Your task to perform on an android device: move a message to another label in the gmail app Image 0: 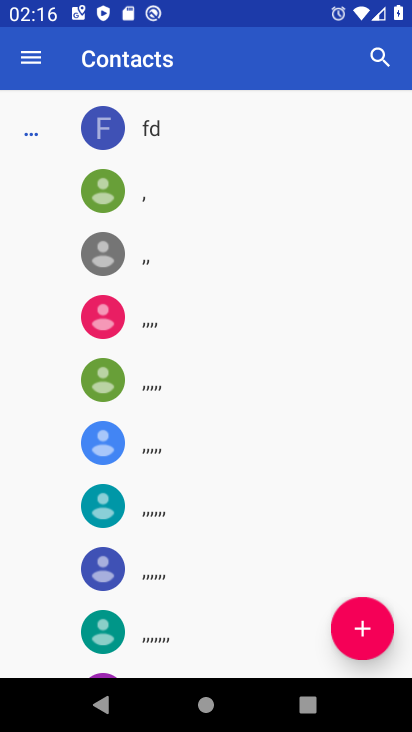
Step 0: press home button
Your task to perform on an android device: move a message to another label in the gmail app Image 1: 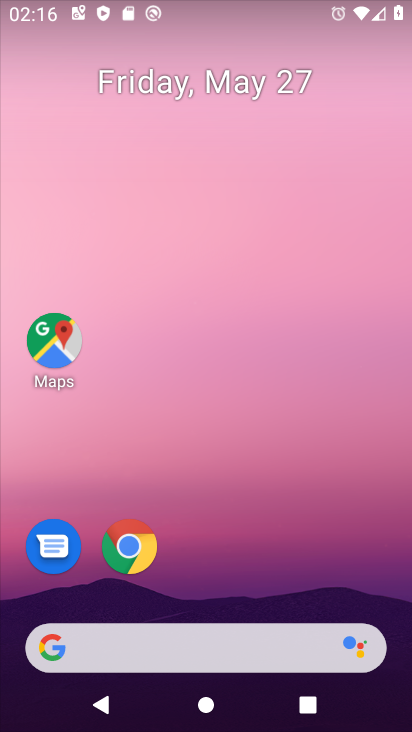
Step 1: drag from (239, 625) to (186, 49)
Your task to perform on an android device: move a message to another label in the gmail app Image 2: 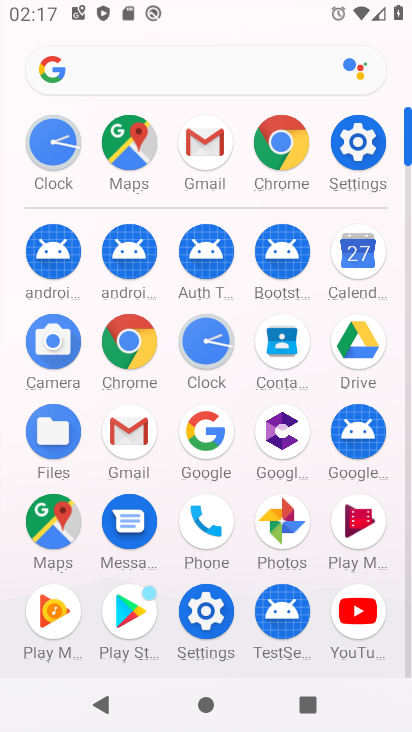
Step 2: click (208, 142)
Your task to perform on an android device: move a message to another label in the gmail app Image 3: 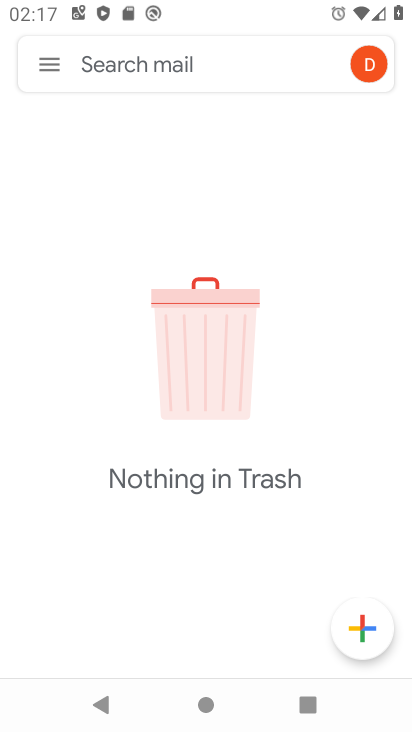
Step 3: click (43, 74)
Your task to perform on an android device: move a message to another label in the gmail app Image 4: 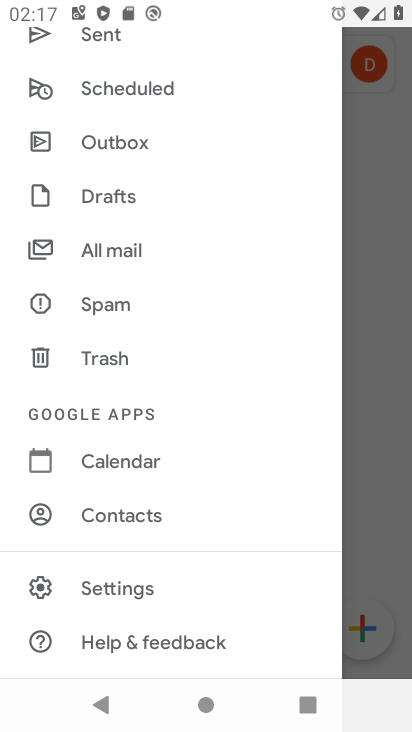
Step 4: click (118, 588)
Your task to perform on an android device: move a message to another label in the gmail app Image 5: 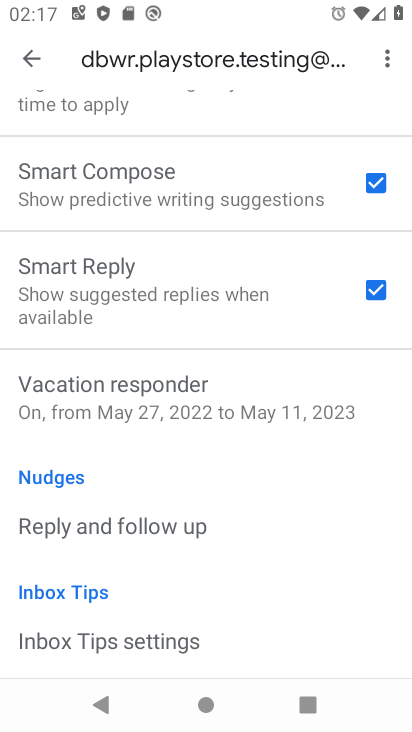
Step 5: drag from (125, 577) to (149, 517)
Your task to perform on an android device: move a message to another label in the gmail app Image 6: 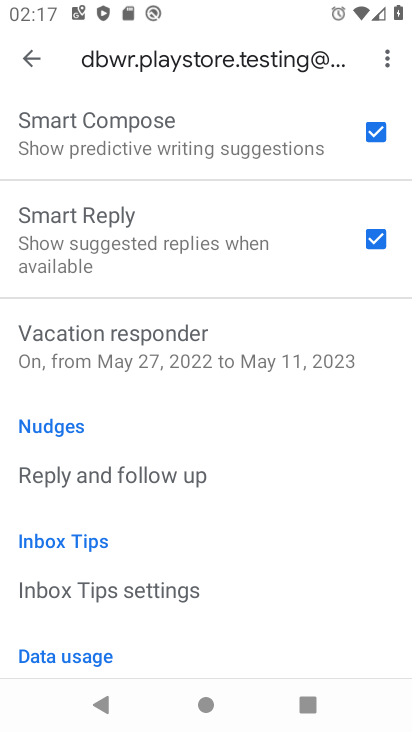
Step 6: drag from (115, 233) to (115, 681)
Your task to perform on an android device: move a message to another label in the gmail app Image 7: 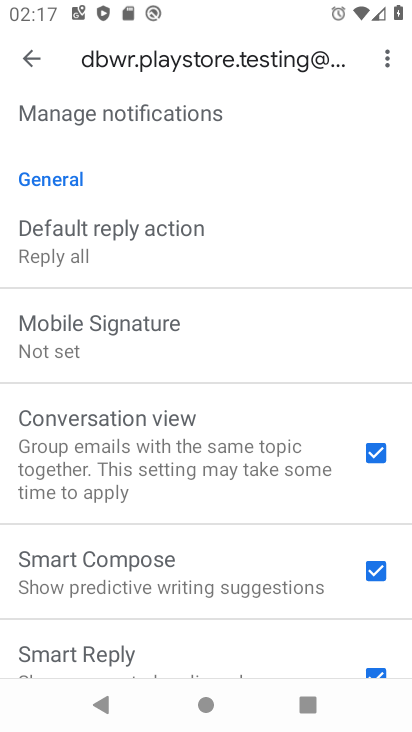
Step 7: drag from (133, 247) to (117, 437)
Your task to perform on an android device: move a message to another label in the gmail app Image 8: 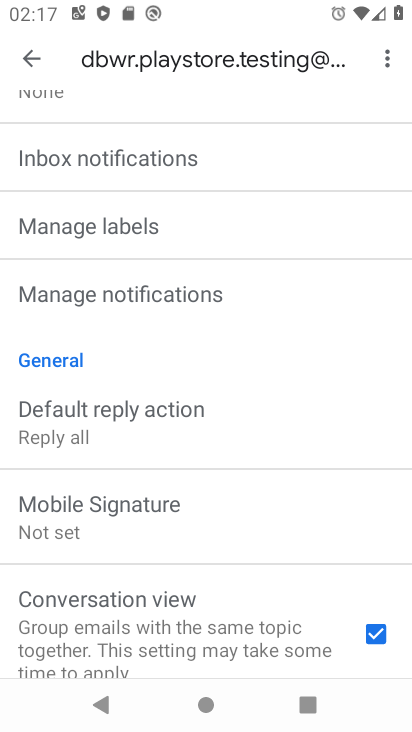
Step 8: click (102, 220)
Your task to perform on an android device: move a message to another label in the gmail app Image 9: 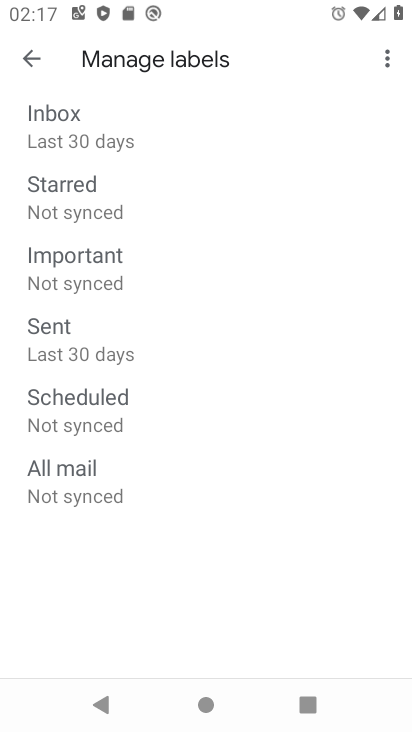
Step 9: click (102, 219)
Your task to perform on an android device: move a message to another label in the gmail app Image 10: 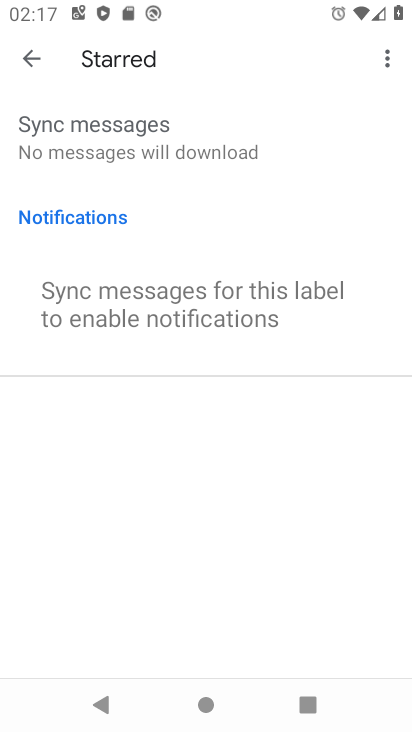
Step 10: task complete